Your task to perform on an android device: Add apple airpods to the cart on bestbuy, then select checkout. Image 0: 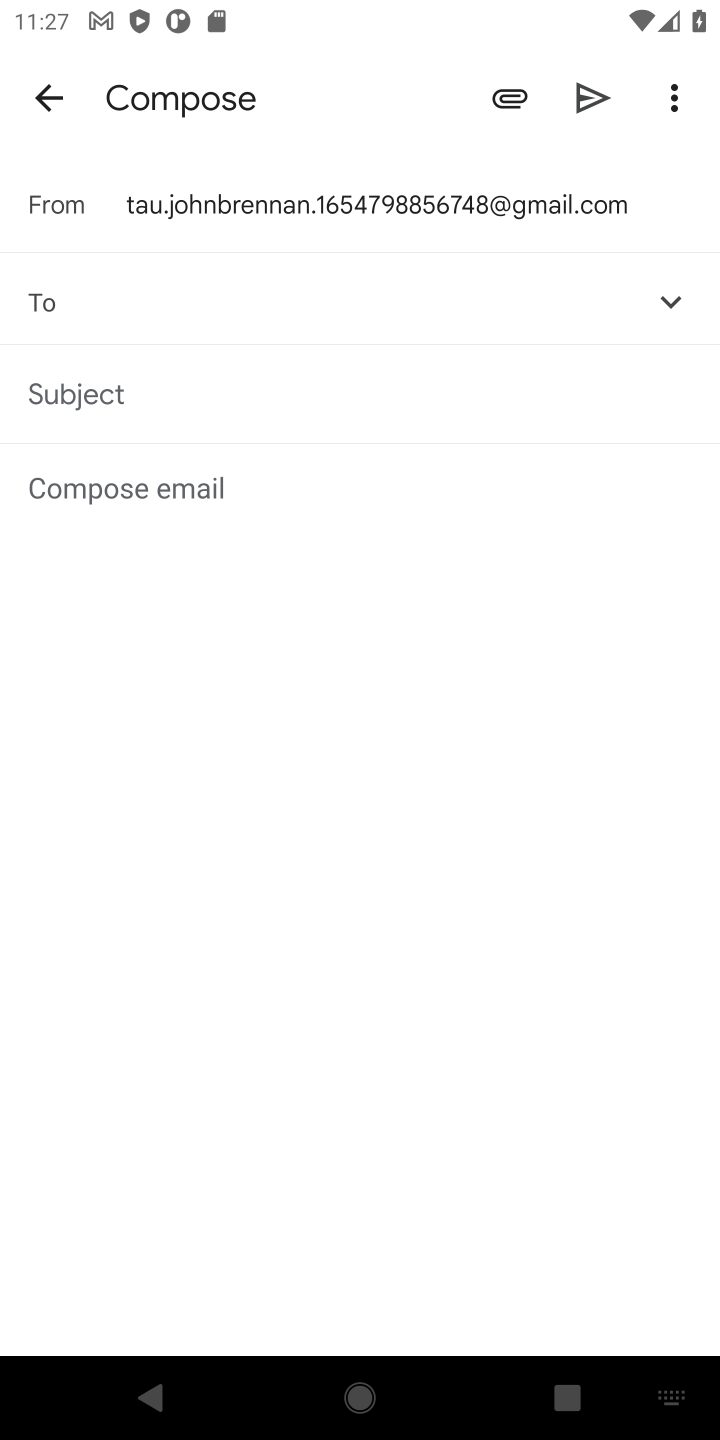
Step 0: press home button
Your task to perform on an android device: Add apple airpods to the cart on bestbuy, then select checkout. Image 1: 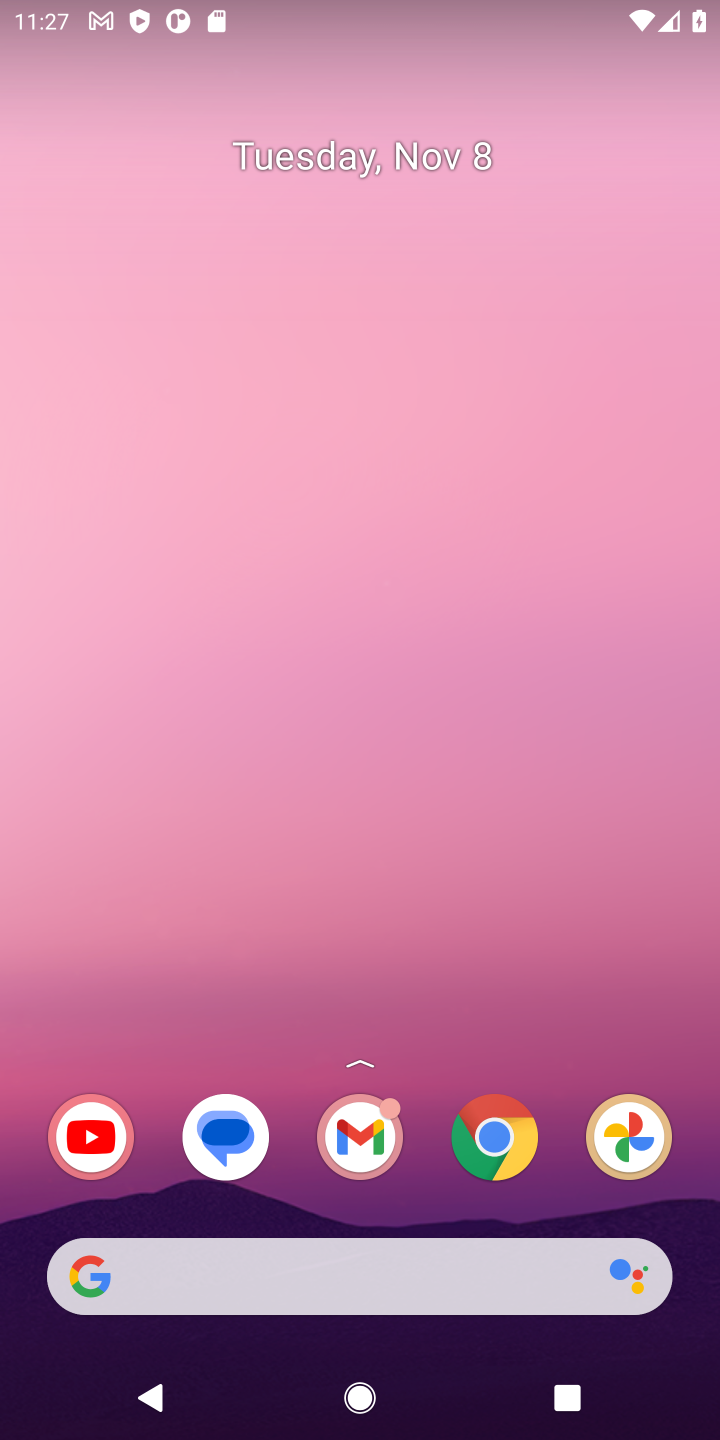
Step 1: click (493, 1142)
Your task to perform on an android device: Add apple airpods to the cart on bestbuy, then select checkout. Image 2: 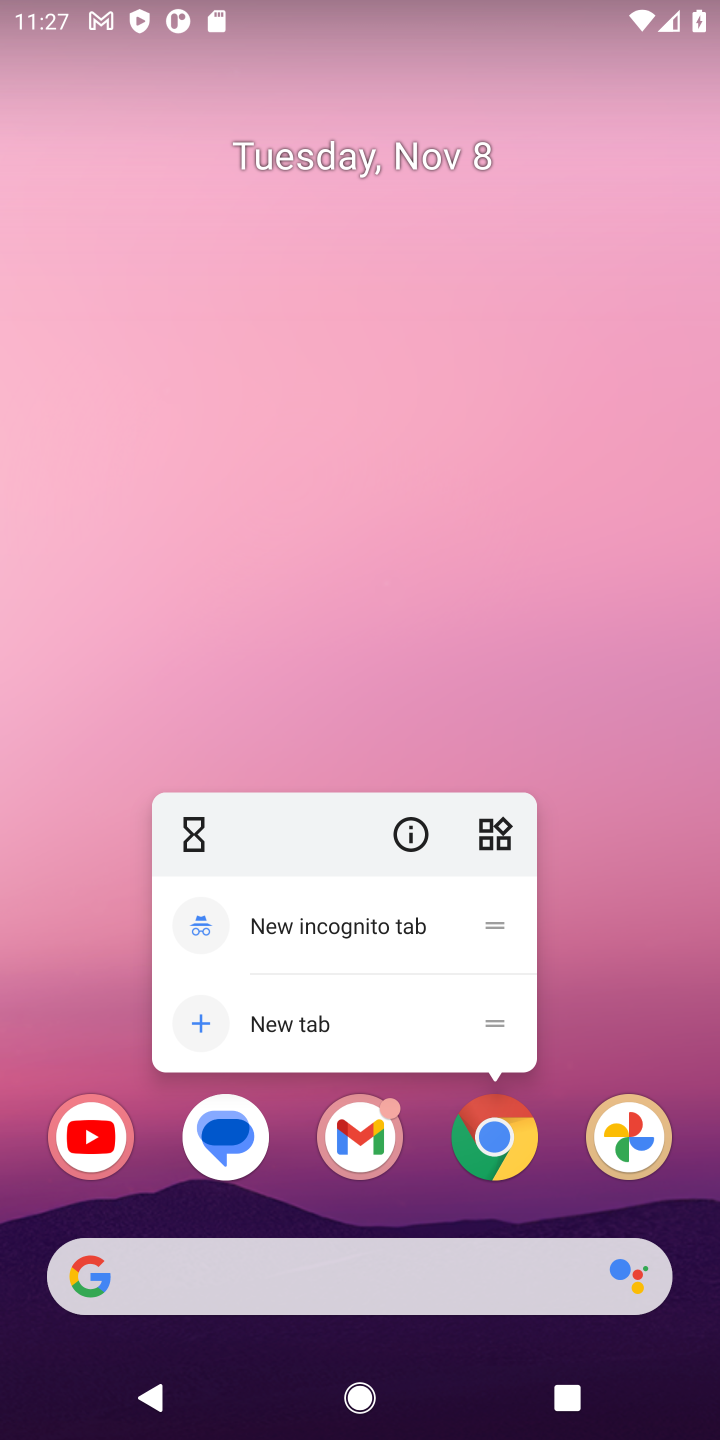
Step 2: click (495, 1139)
Your task to perform on an android device: Add apple airpods to the cart on bestbuy, then select checkout. Image 3: 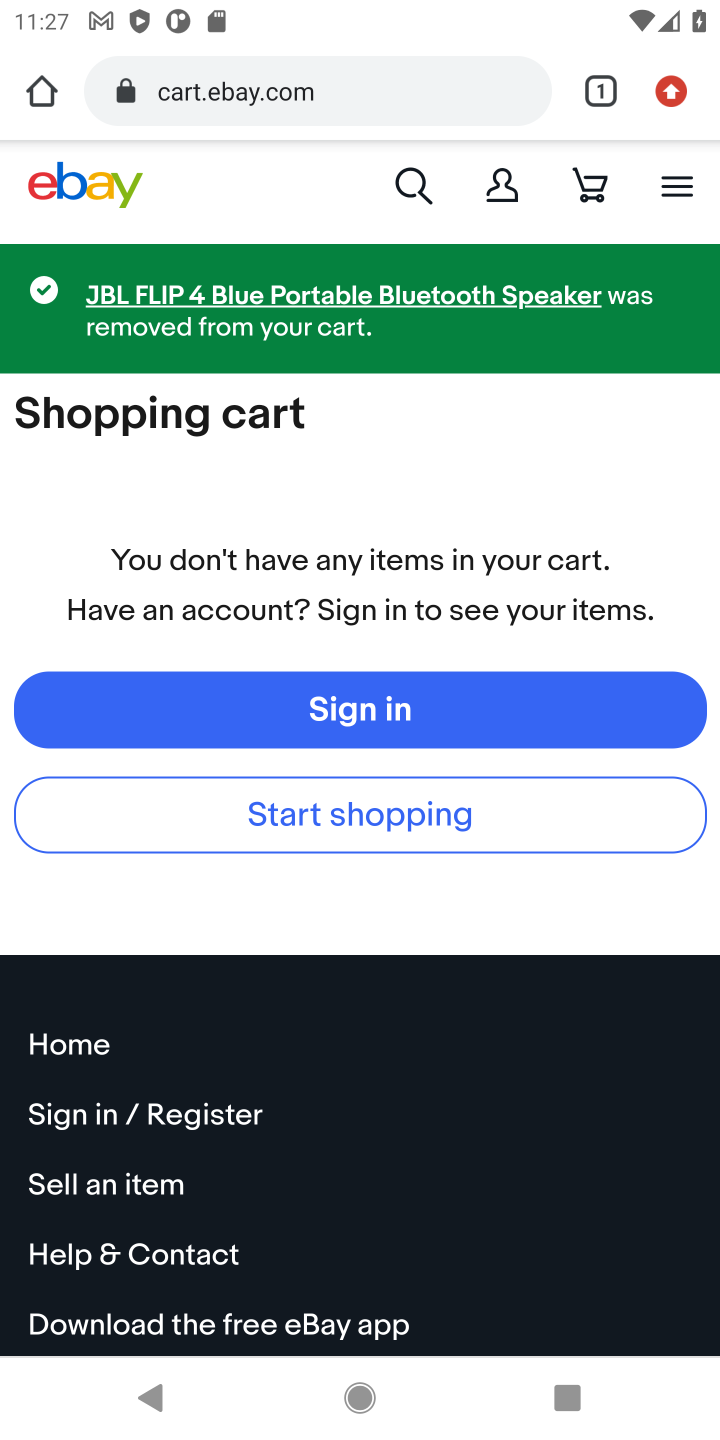
Step 3: click (301, 85)
Your task to perform on an android device: Add apple airpods to the cart on bestbuy, then select checkout. Image 4: 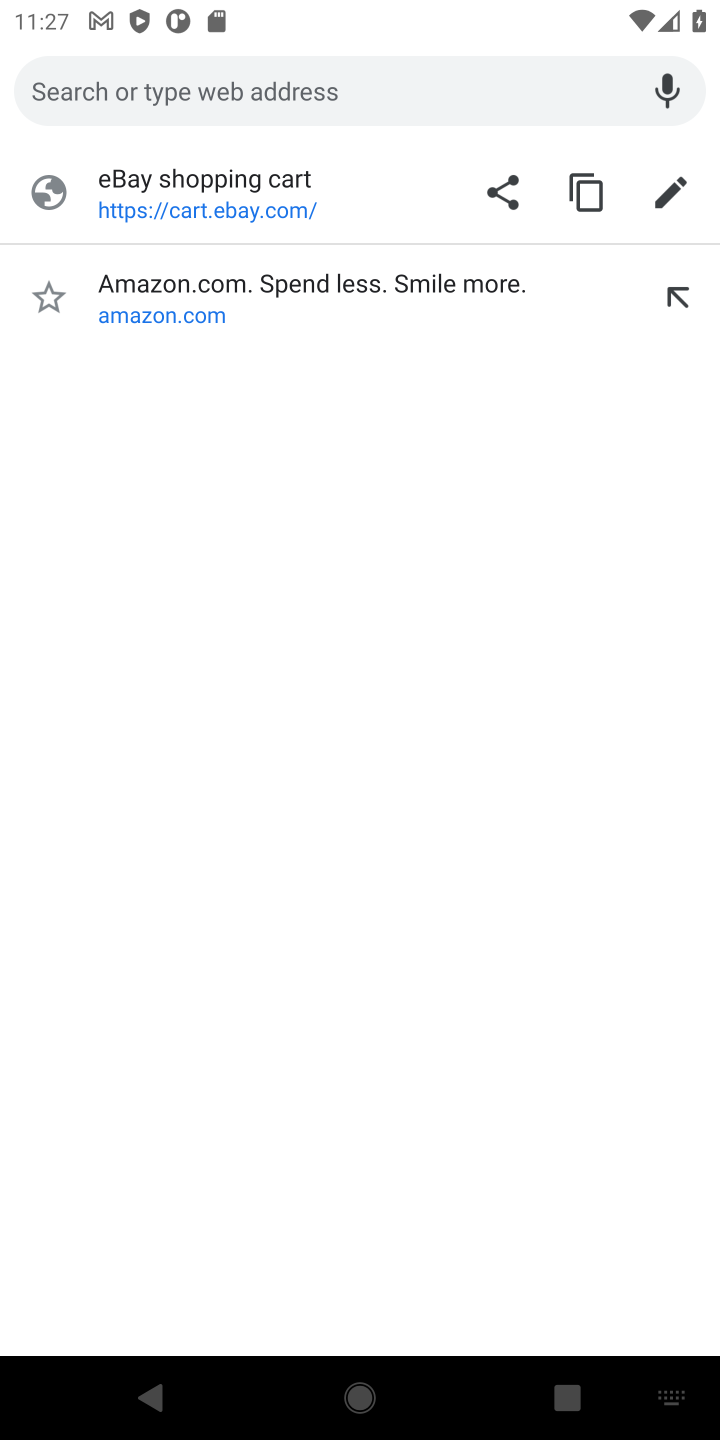
Step 4: type "bestbuy"
Your task to perform on an android device: Add apple airpods to the cart on bestbuy, then select checkout. Image 5: 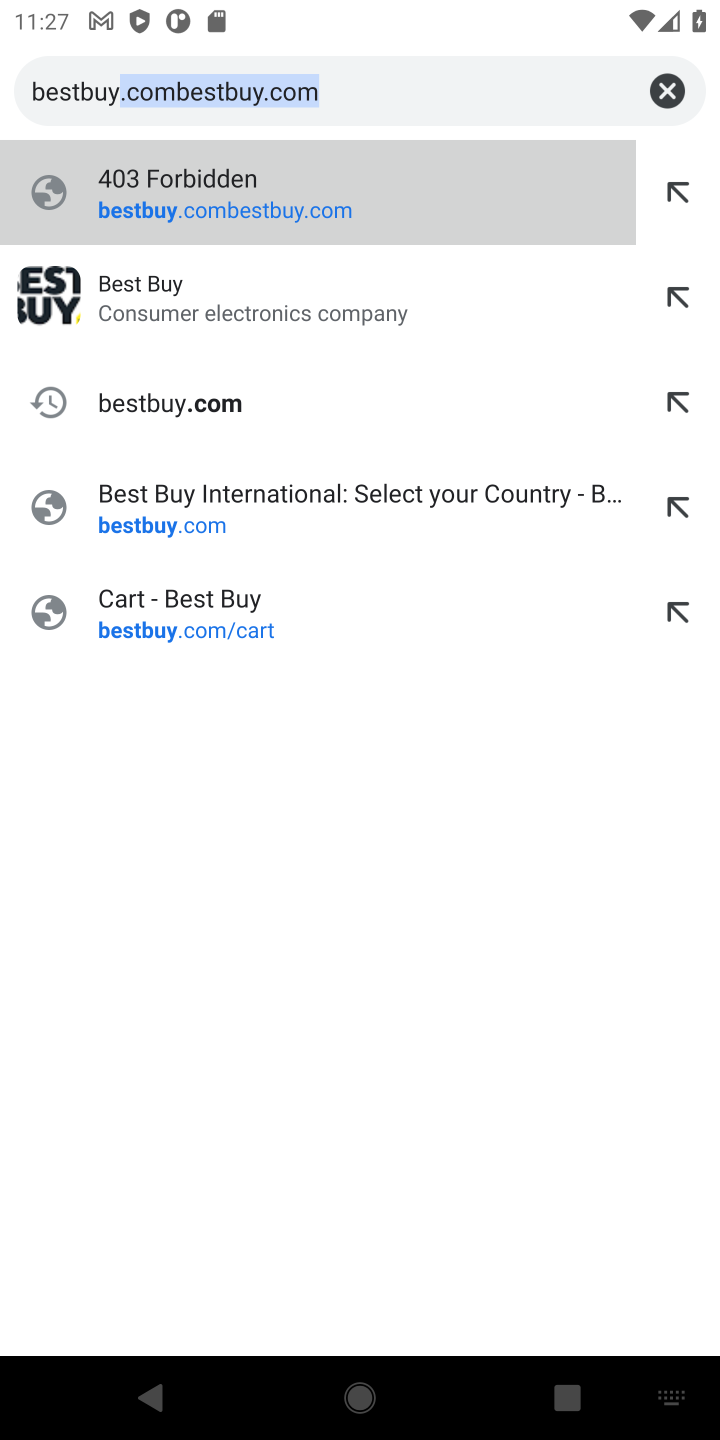
Step 5: click (151, 301)
Your task to perform on an android device: Add apple airpods to the cart on bestbuy, then select checkout. Image 6: 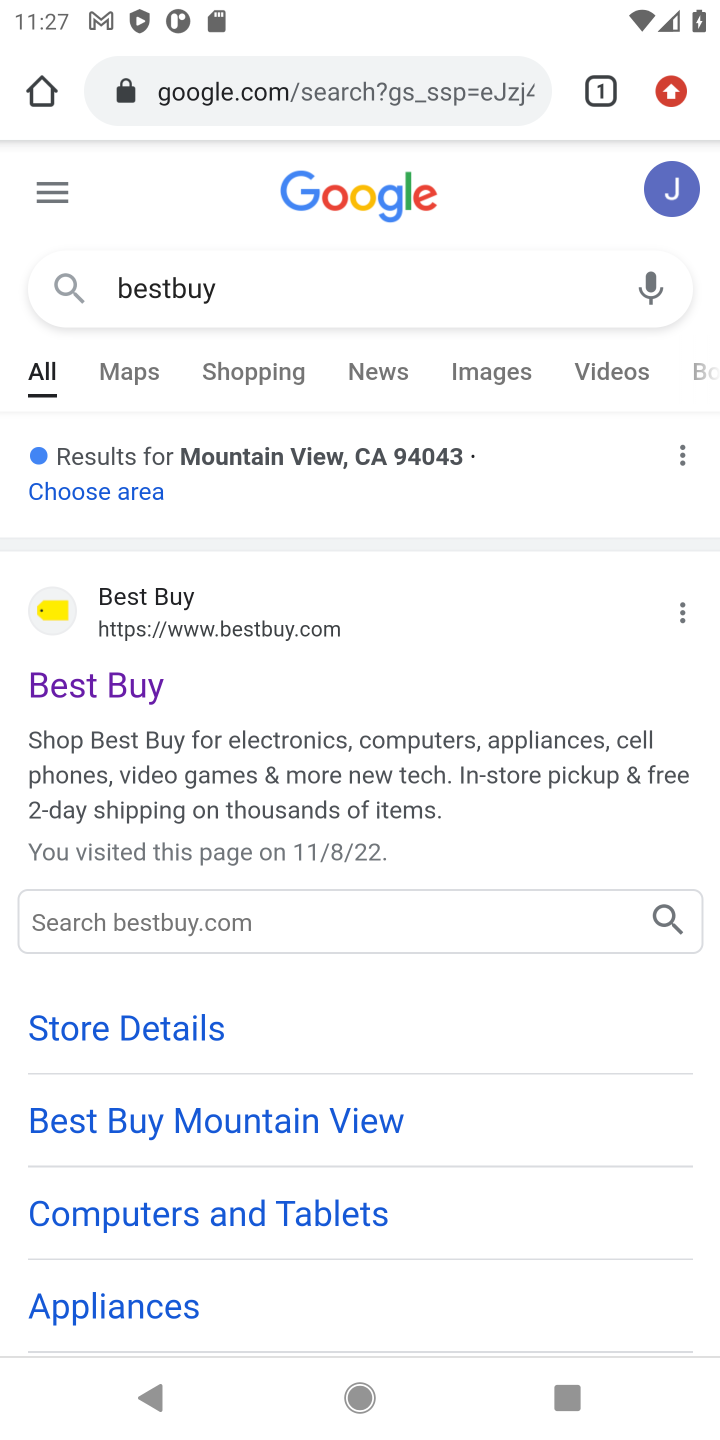
Step 6: click (107, 660)
Your task to perform on an android device: Add apple airpods to the cart on bestbuy, then select checkout. Image 7: 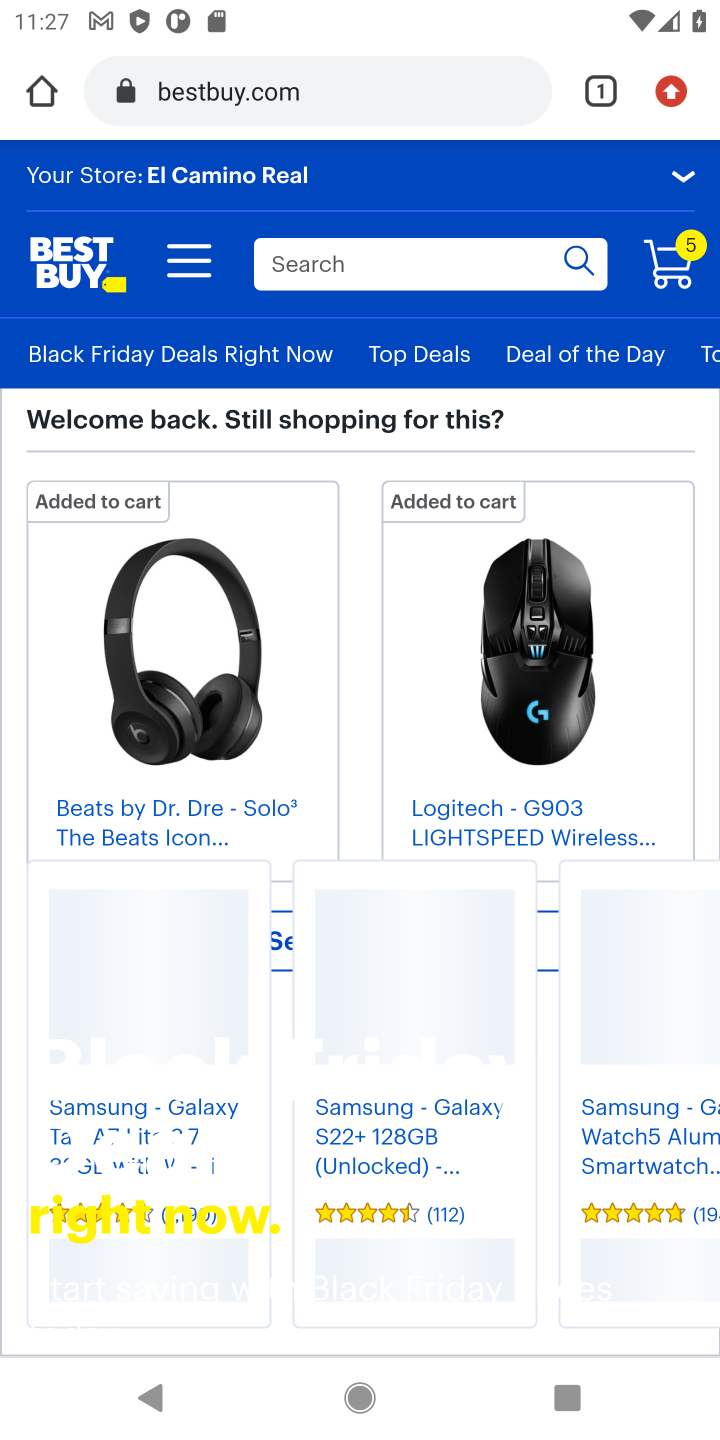
Step 7: click (421, 272)
Your task to perform on an android device: Add apple airpods to the cart on bestbuy, then select checkout. Image 8: 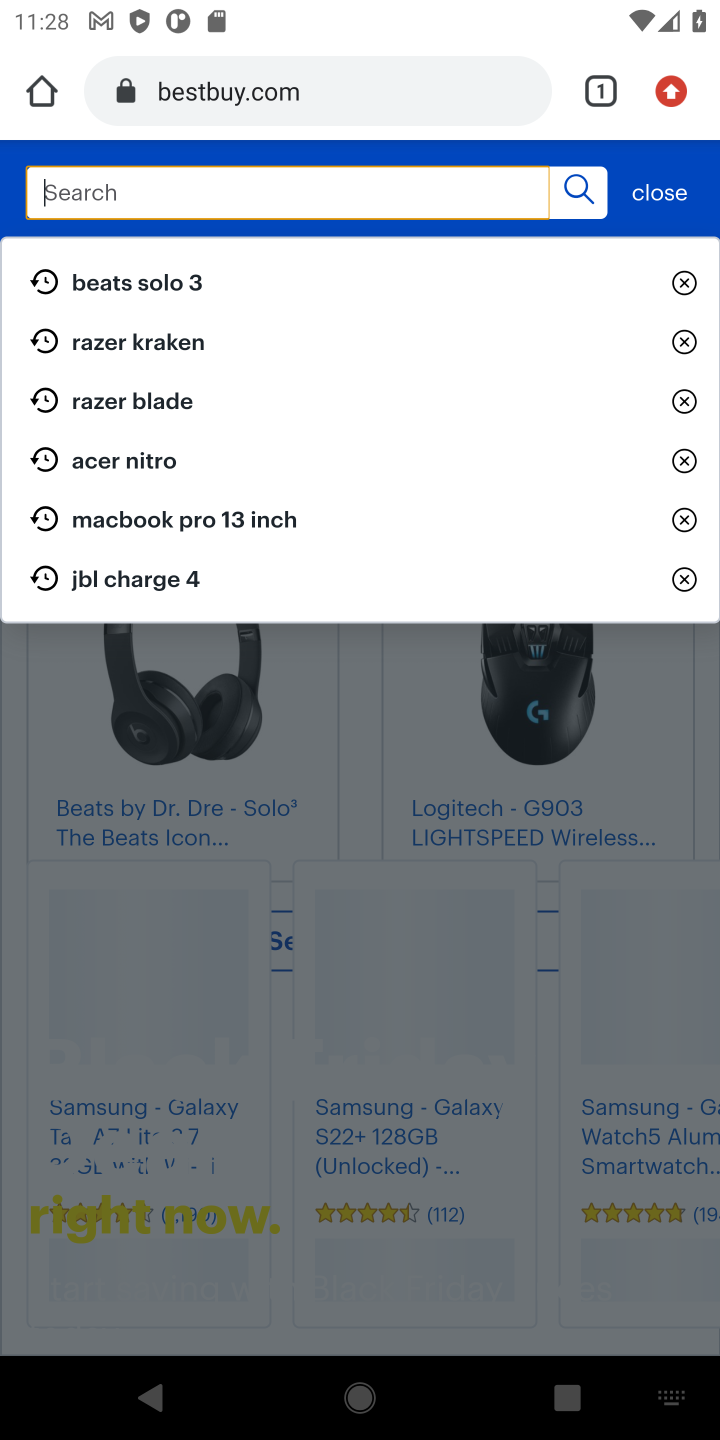
Step 8: type "apple airpods"
Your task to perform on an android device: Add apple airpods to the cart on bestbuy, then select checkout. Image 9: 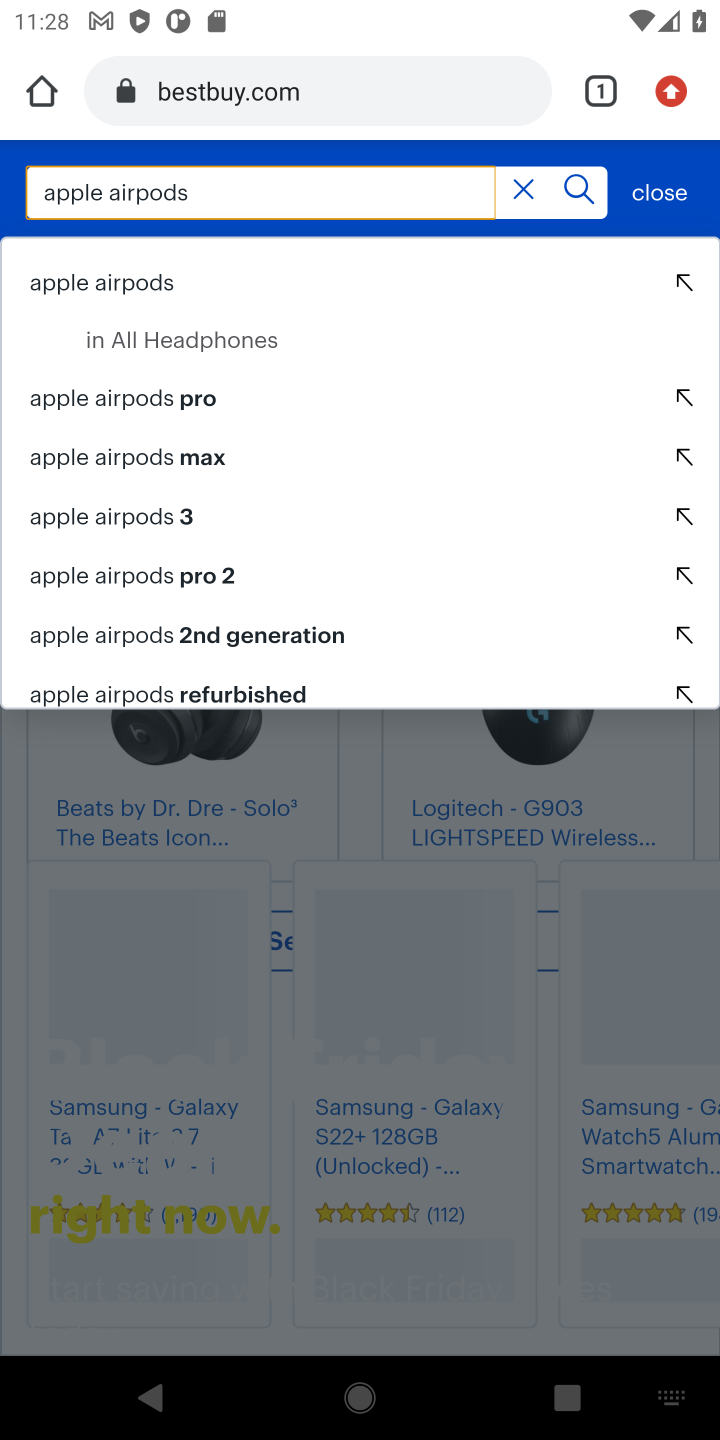
Step 9: click (153, 289)
Your task to perform on an android device: Add apple airpods to the cart on bestbuy, then select checkout. Image 10: 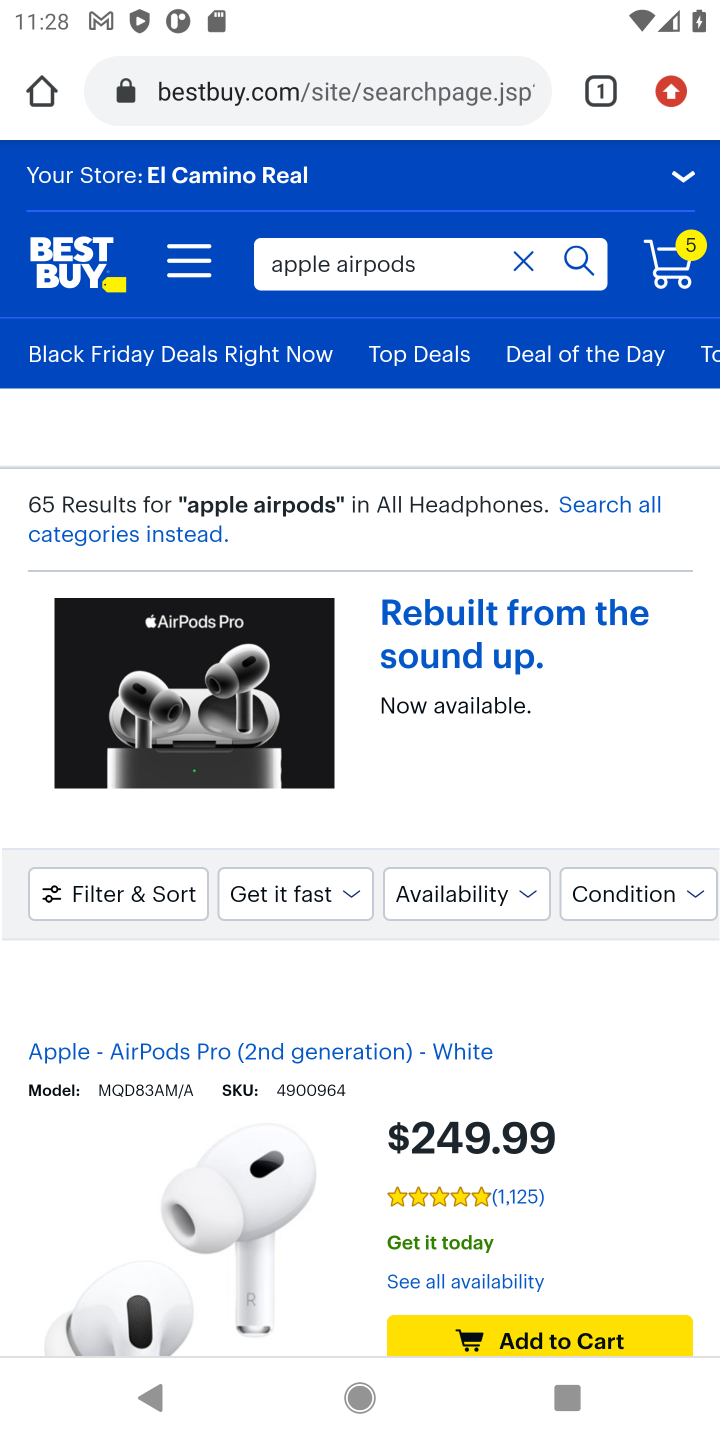
Step 10: drag from (554, 1052) to (630, 668)
Your task to perform on an android device: Add apple airpods to the cart on bestbuy, then select checkout. Image 11: 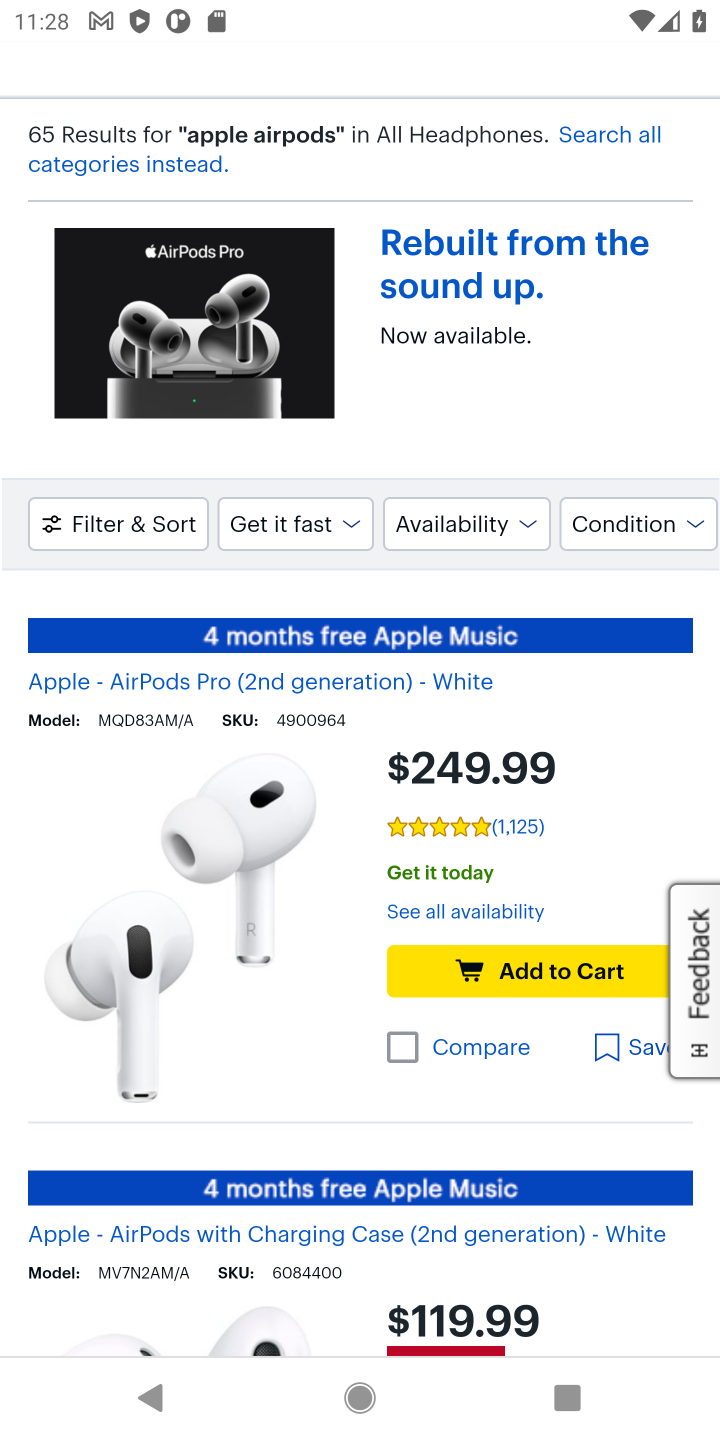
Step 11: click (535, 975)
Your task to perform on an android device: Add apple airpods to the cart on bestbuy, then select checkout. Image 12: 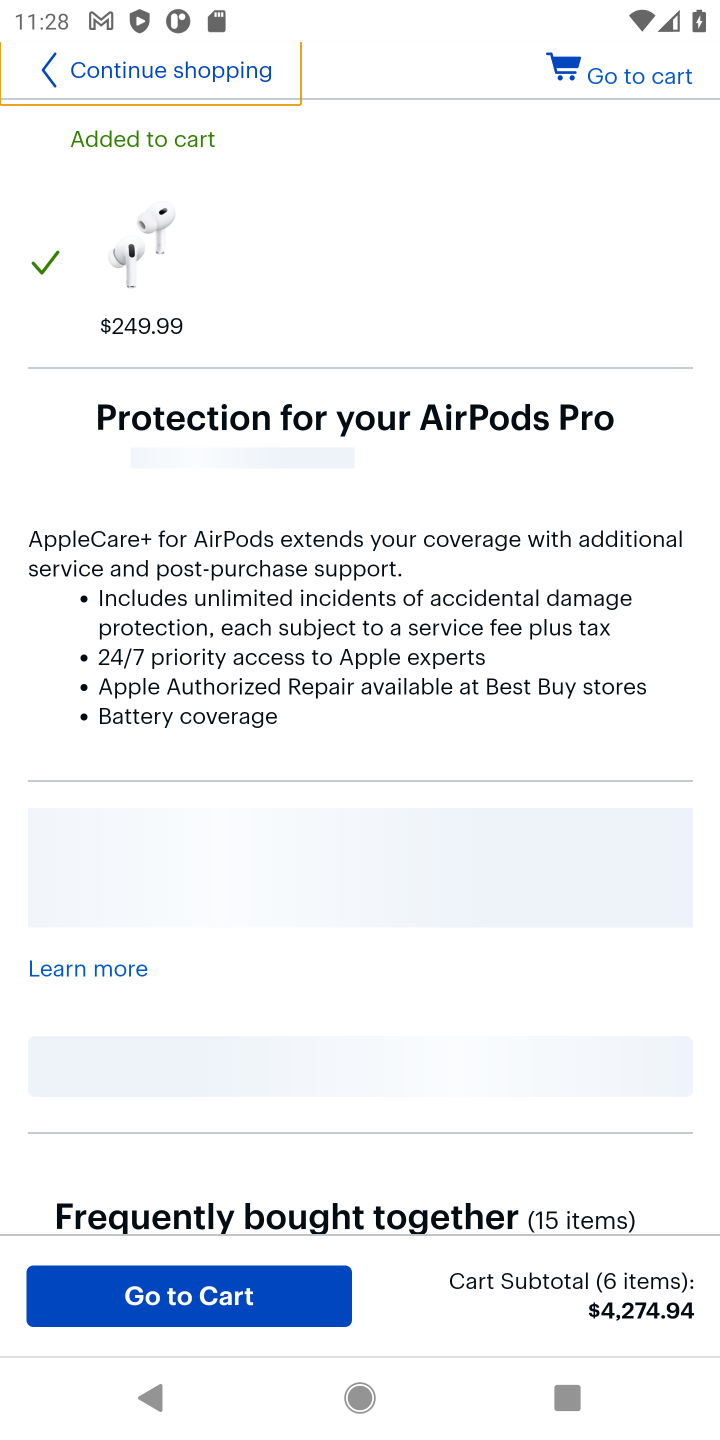
Step 12: click (171, 1297)
Your task to perform on an android device: Add apple airpods to the cart on bestbuy, then select checkout. Image 13: 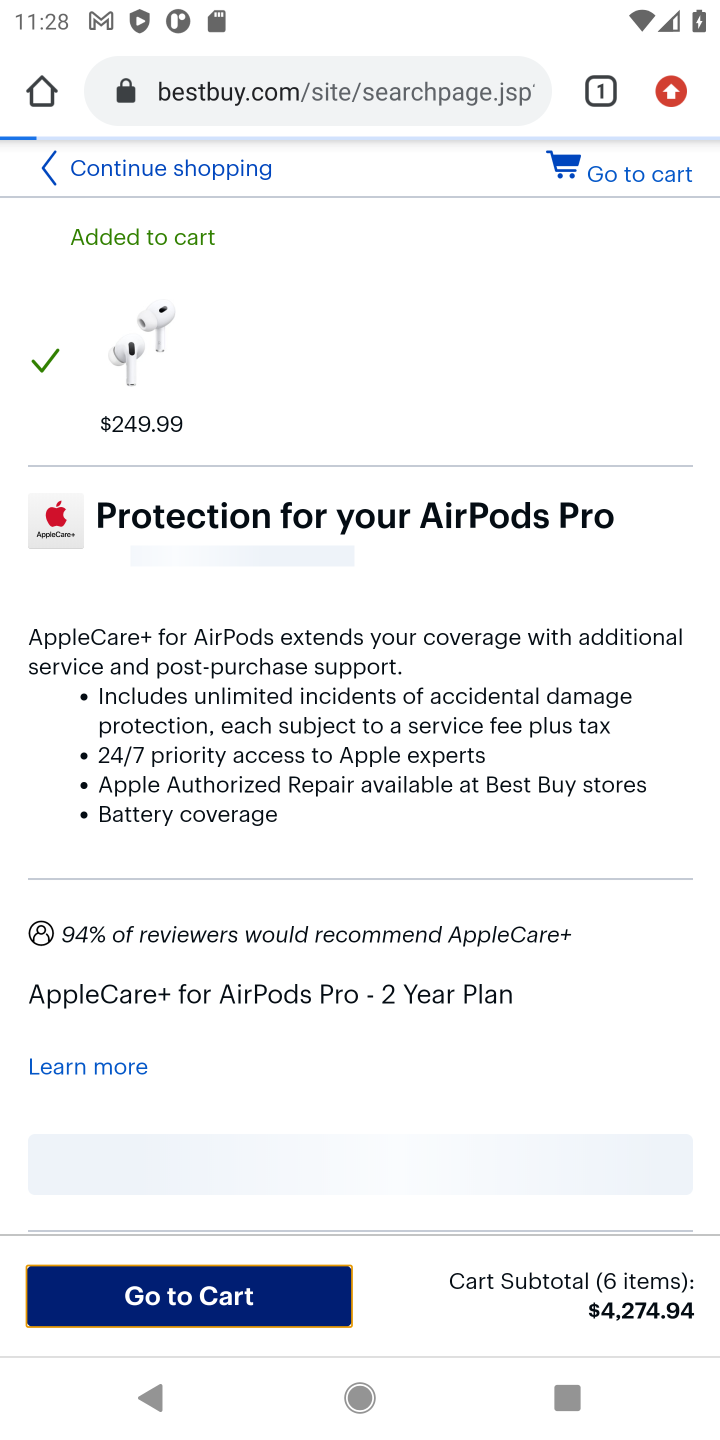
Step 13: click (195, 1295)
Your task to perform on an android device: Add apple airpods to the cart on bestbuy, then select checkout. Image 14: 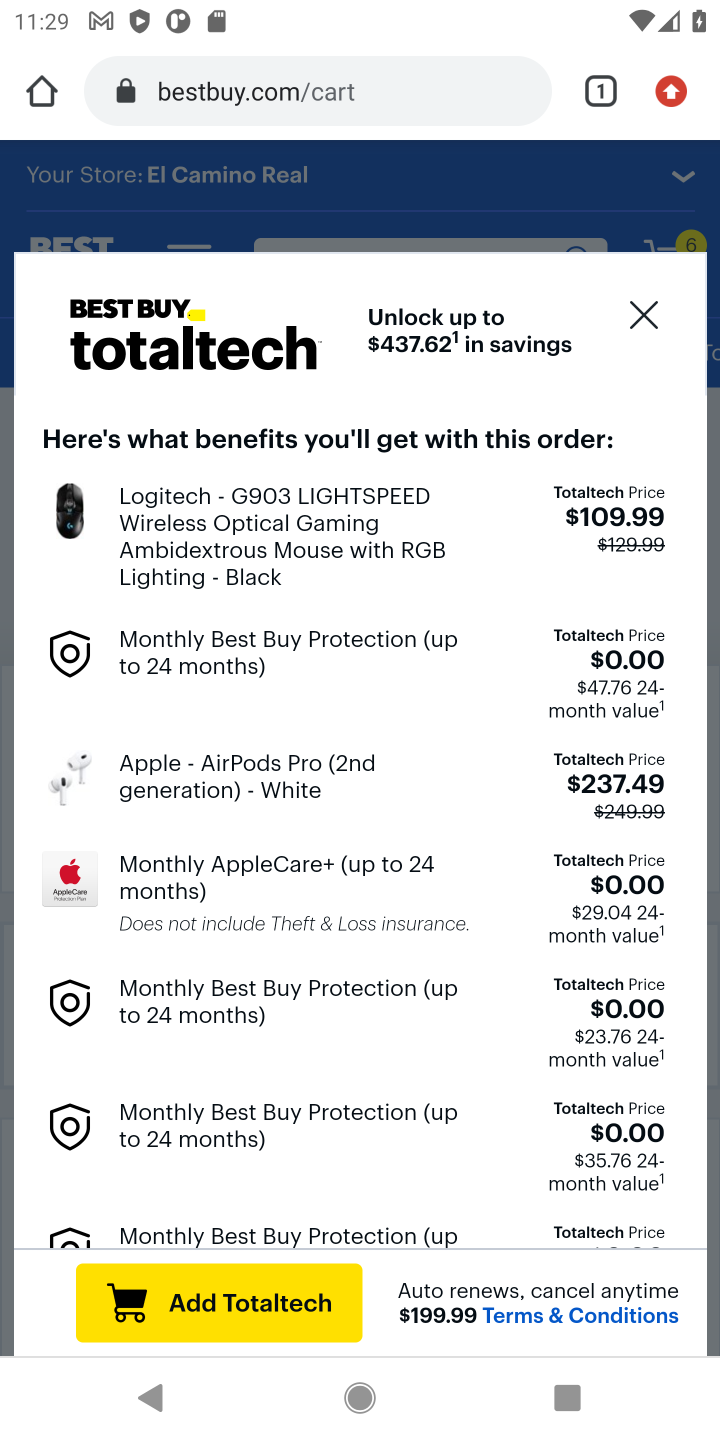
Step 14: click (646, 309)
Your task to perform on an android device: Add apple airpods to the cart on bestbuy, then select checkout. Image 15: 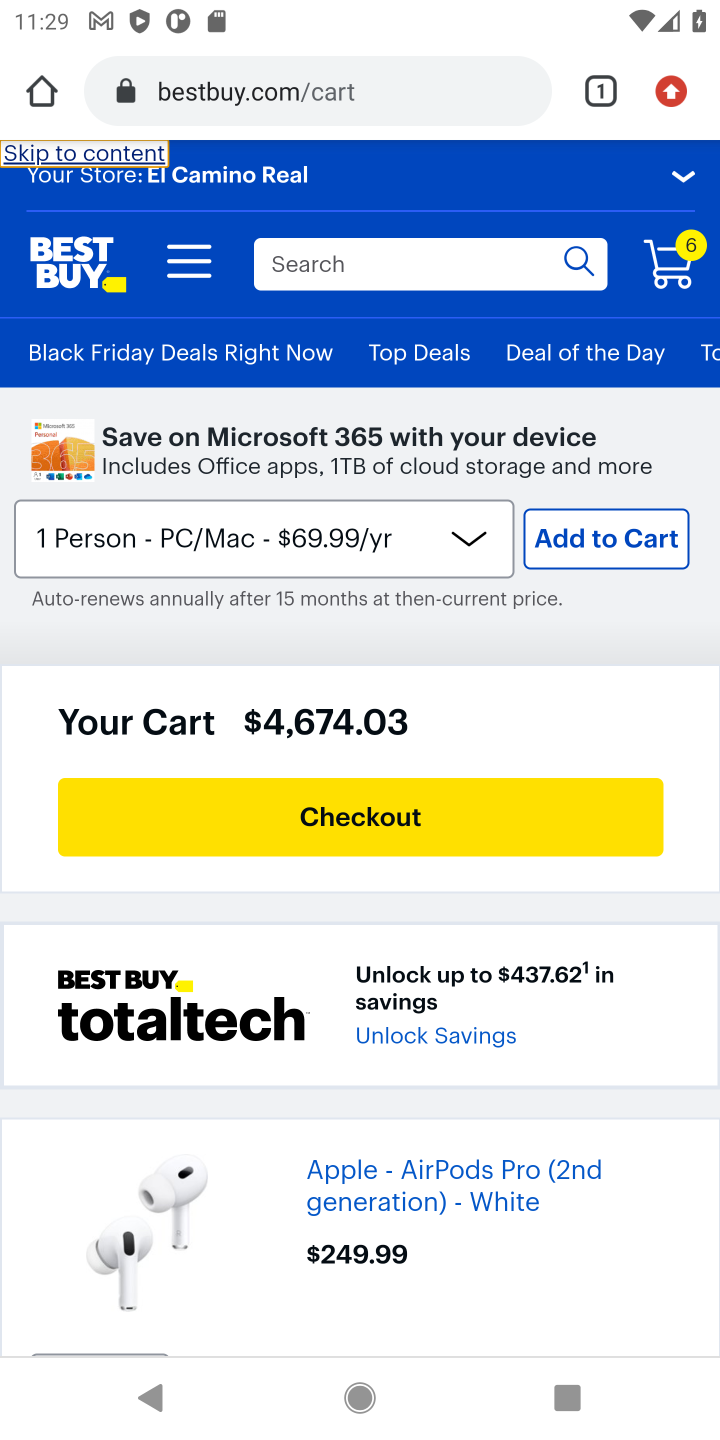
Step 15: click (347, 816)
Your task to perform on an android device: Add apple airpods to the cart on bestbuy, then select checkout. Image 16: 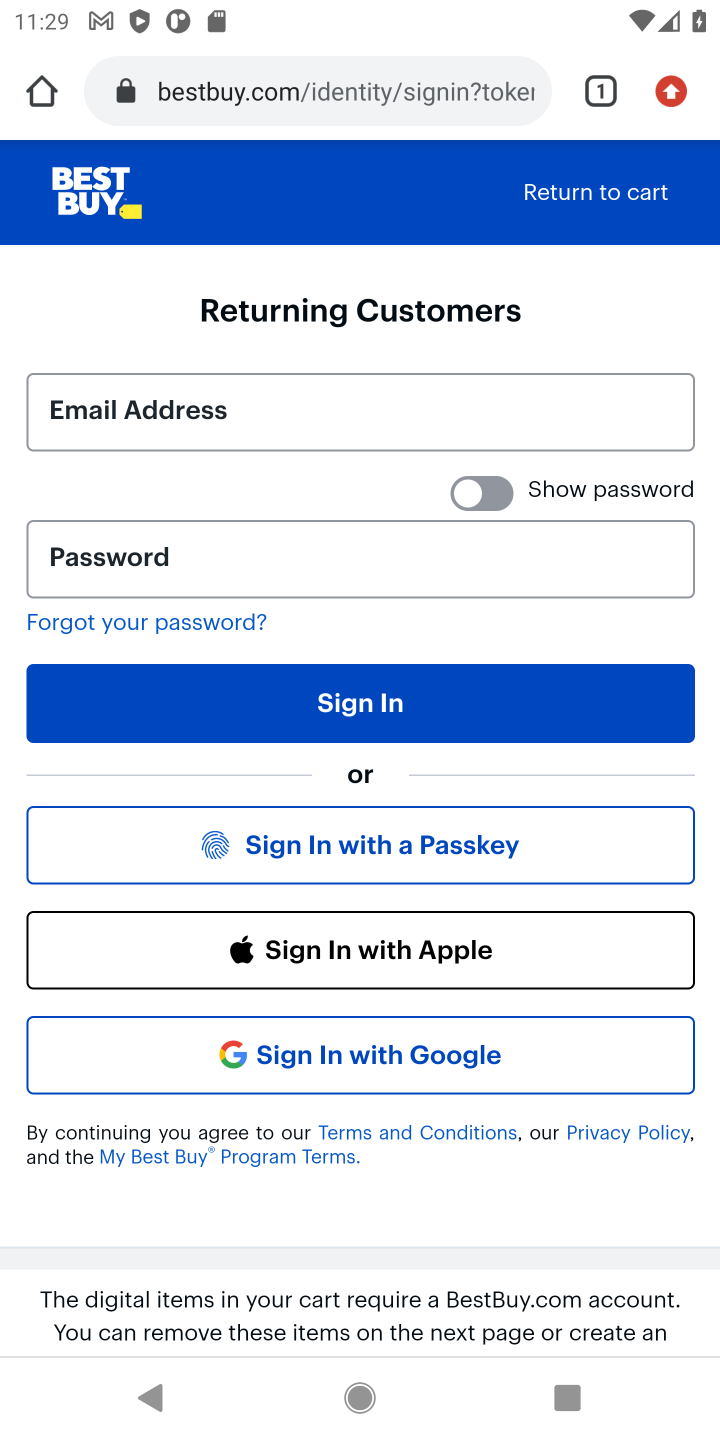
Step 16: task complete